Your task to perform on an android device: open sync settings in chrome Image 0: 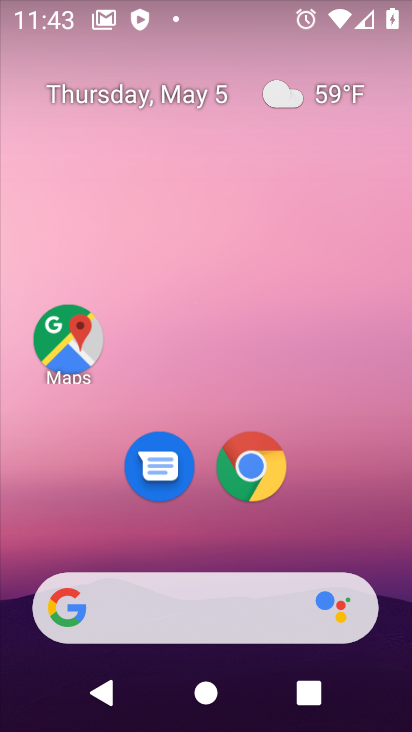
Step 0: click (253, 469)
Your task to perform on an android device: open sync settings in chrome Image 1: 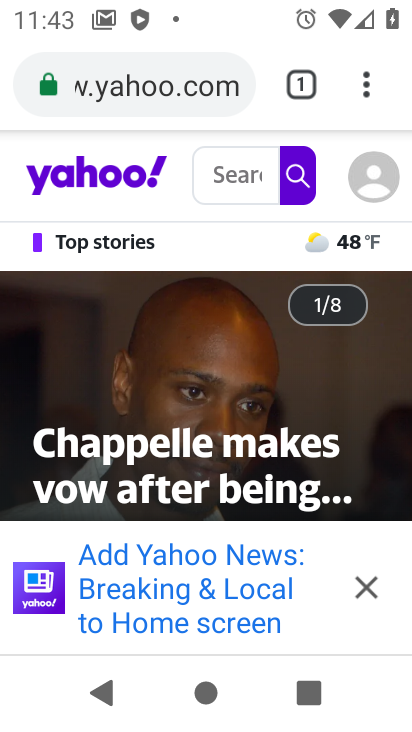
Step 1: click (367, 90)
Your task to perform on an android device: open sync settings in chrome Image 2: 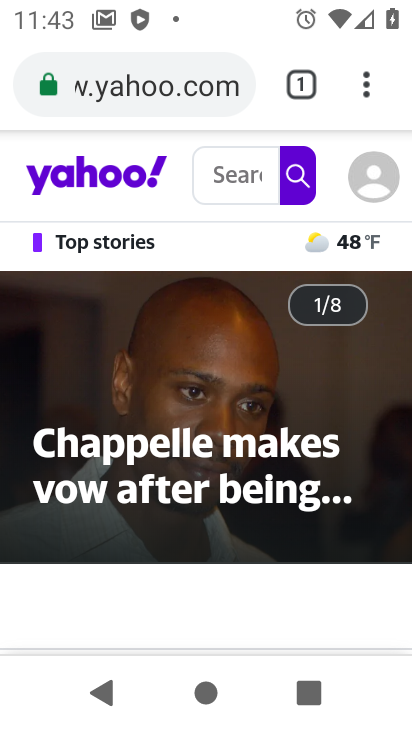
Step 2: click (366, 79)
Your task to perform on an android device: open sync settings in chrome Image 3: 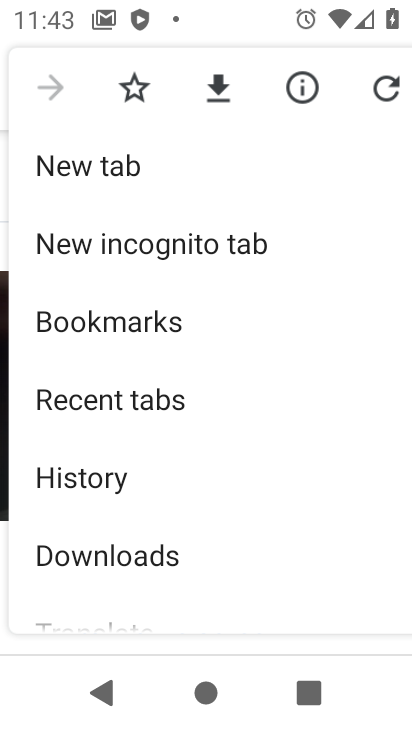
Step 3: drag from (165, 517) to (238, 694)
Your task to perform on an android device: open sync settings in chrome Image 4: 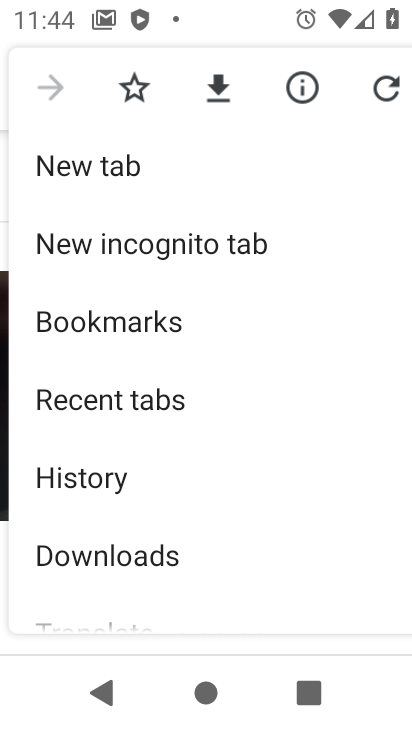
Step 4: drag from (155, 529) to (197, 172)
Your task to perform on an android device: open sync settings in chrome Image 5: 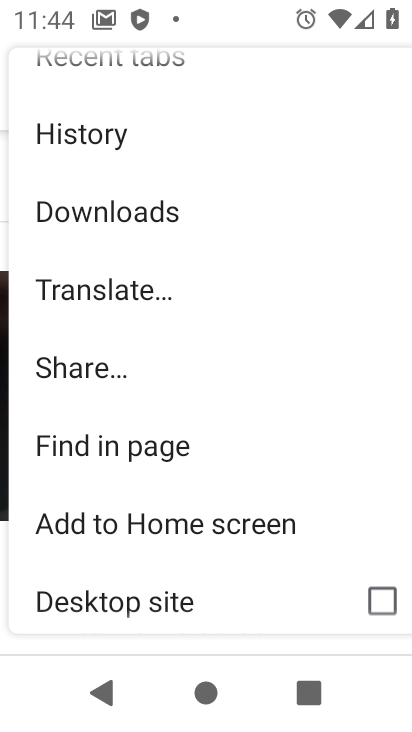
Step 5: drag from (95, 552) to (186, 221)
Your task to perform on an android device: open sync settings in chrome Image 6: 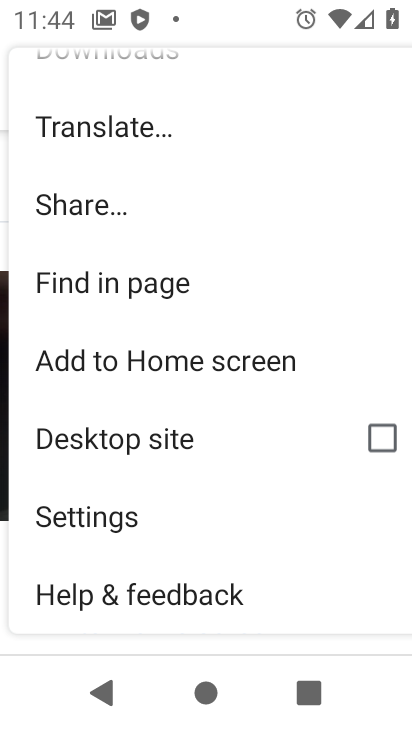
Step 6: click (100, 518)
Your task to perform on an android device: open sync settings in chrome Image 7: 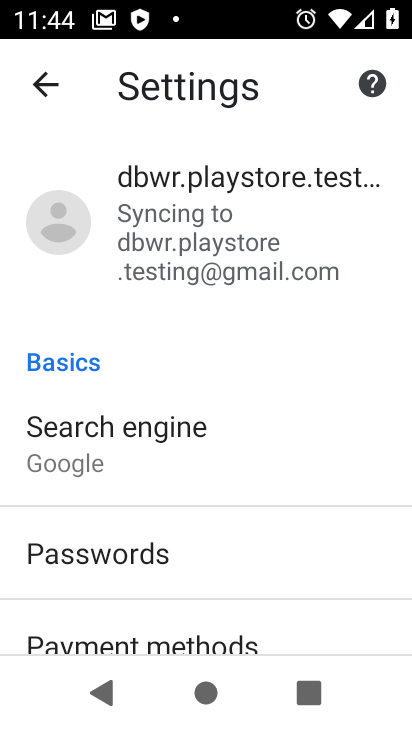
Step 7: click (184, 276)
Your task to perform on an android device: open sync settings in chrome Image 8: 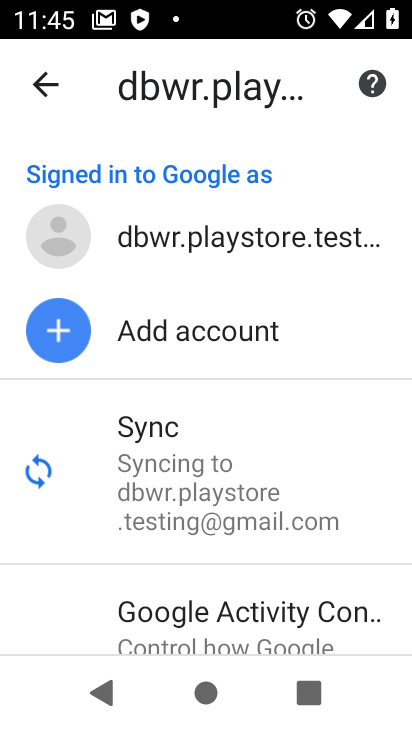
Step 8: click (169, 489)
Your task to perform on an android device: open sync settings in chrome Image 9: 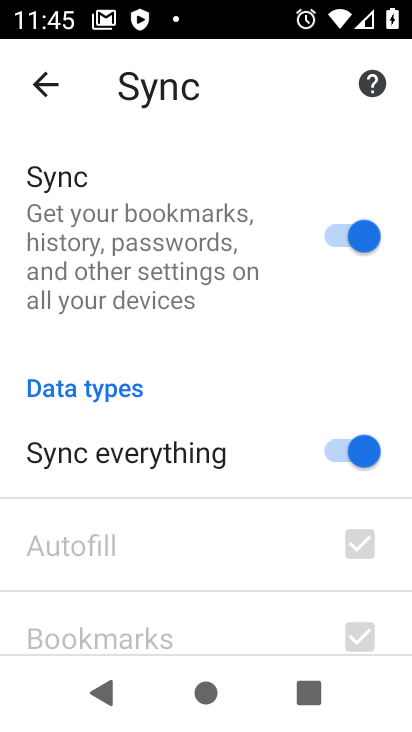
Step 9: task complete